Your task to perform on an android device: Search for pizza restaurants on Maps Image 0: 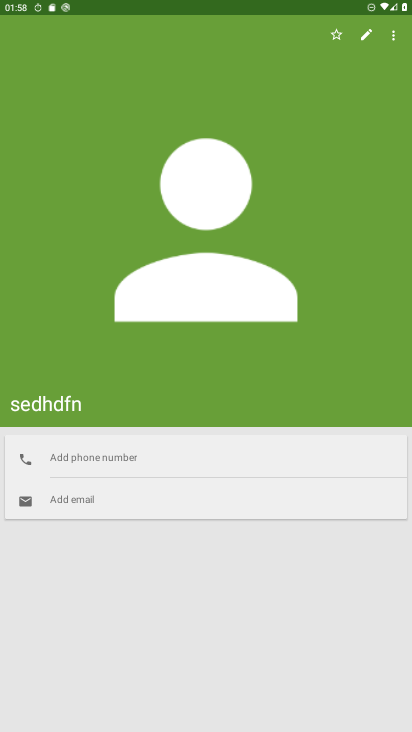
Step 0: press home button
Your task to perform on an android device: Search for pizza restaurants on Maps Image 1: 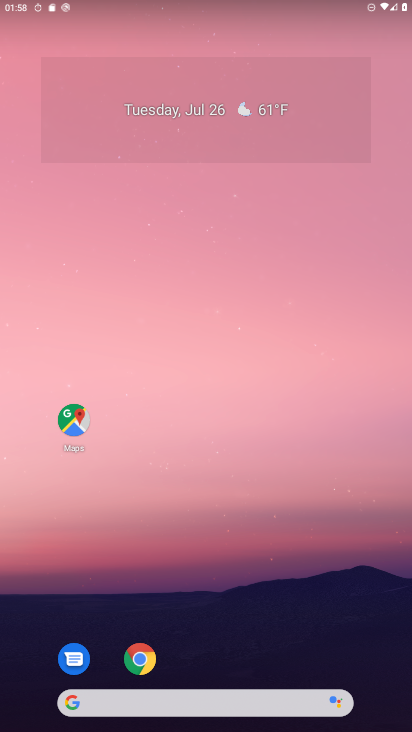
Step 1: click (71, 410)
Your task to perform on an android device: Search for pizza restaurants on Maps Image 2: 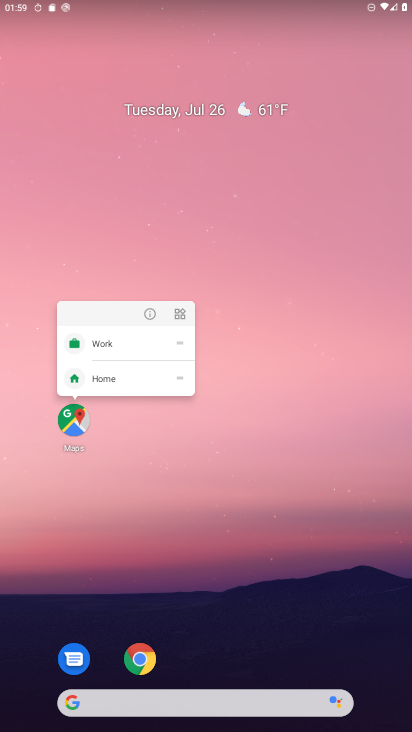
Step 2: click (72, 423)
Your task to perform on an android device: Search for pizza restaurants on Maps Image 3: 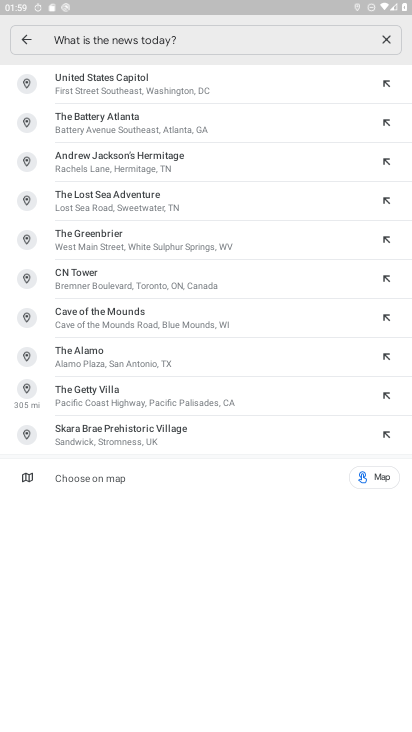
Step 3: click (31, 41)
Your task to perform on an android device: Search for pizza restaurants on Maps Image 4: 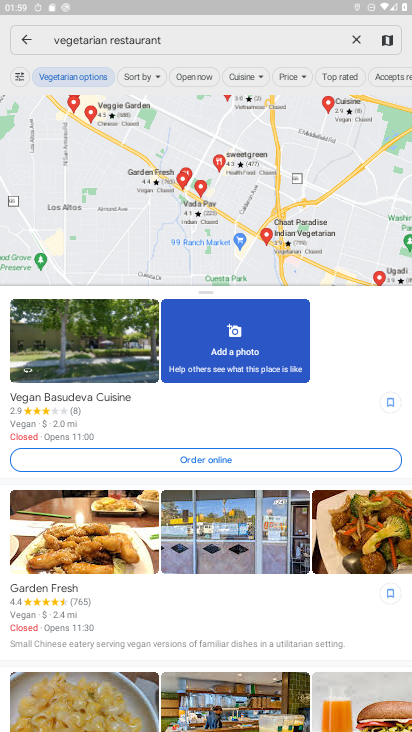
Step 4: click (348, 35)
Your task to perform on an android device: Search for pizza restaurants on Maps Image 5: 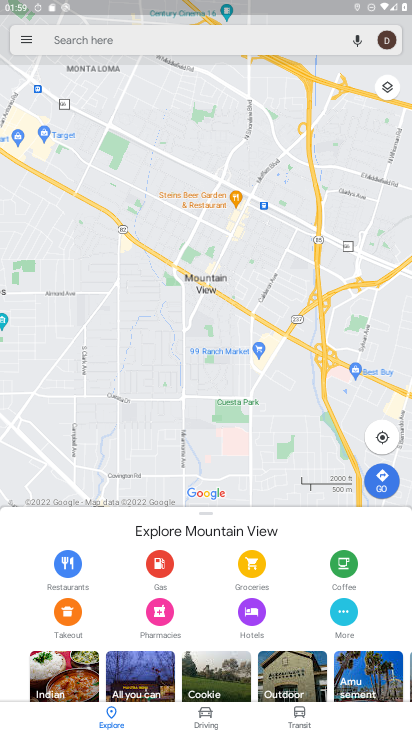
Step 5: click (98, 38)
Your task to perform on an android device: Search for pizza restaurants on Maps Image 6: 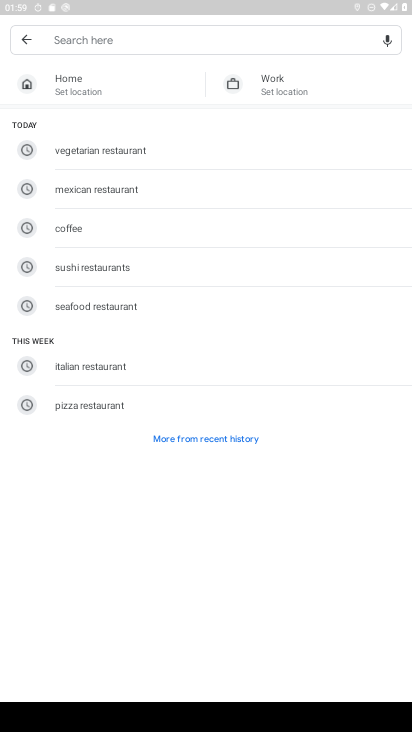
Step 6: type " pizza restaurants"
Your task to perform on an android device: Search for pizza restaurants on Maps Image 7: 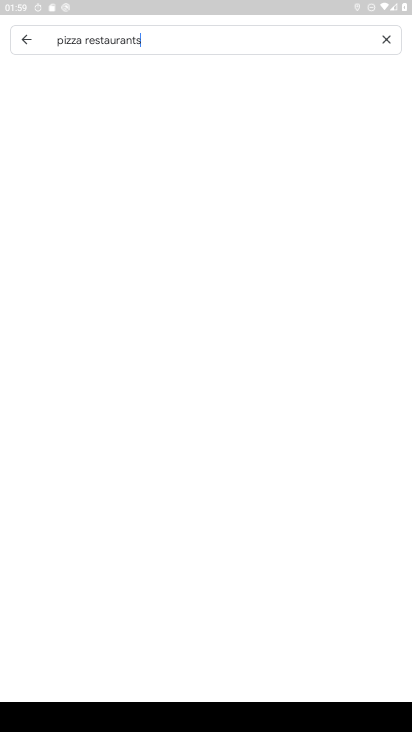
Step 7: type ""
Your task to perform on an android device: Search for pizza restaurants on Maps Image 8: 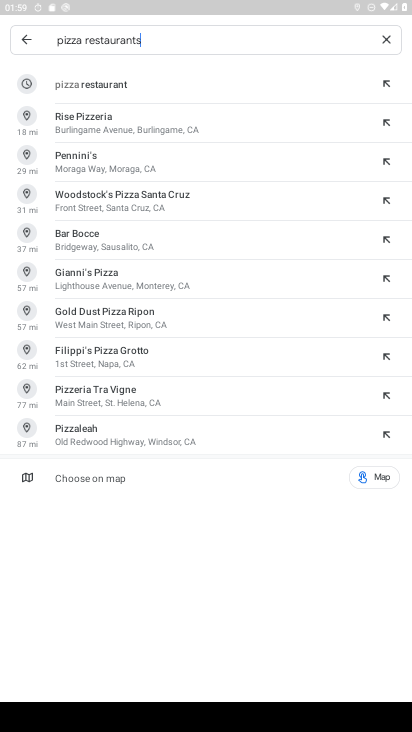
Step 8: task complete